Your task to perform on an android device: Open network settings Image 0: 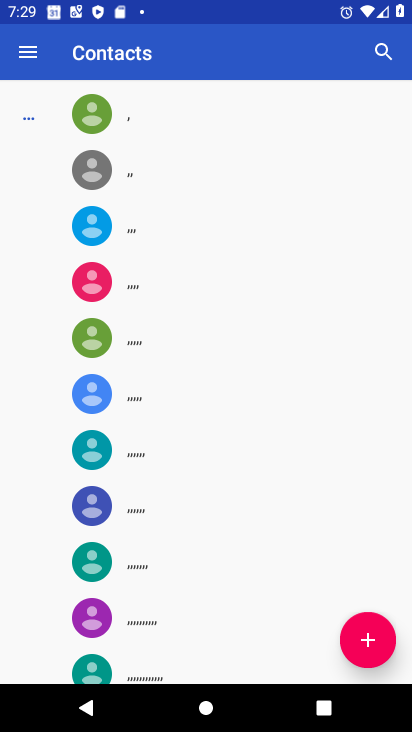
Step 0: press home button
Your task to perform on an android device: Open network settings Image 1: 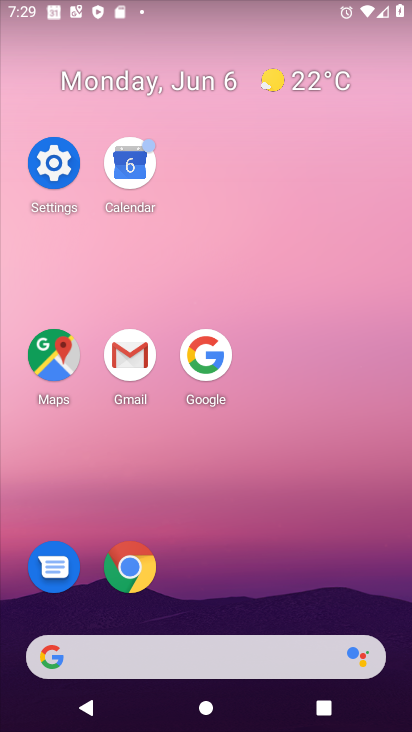
Step 1: click (84, 147)
Your task to perform on an android device: Open network settings Image 2: 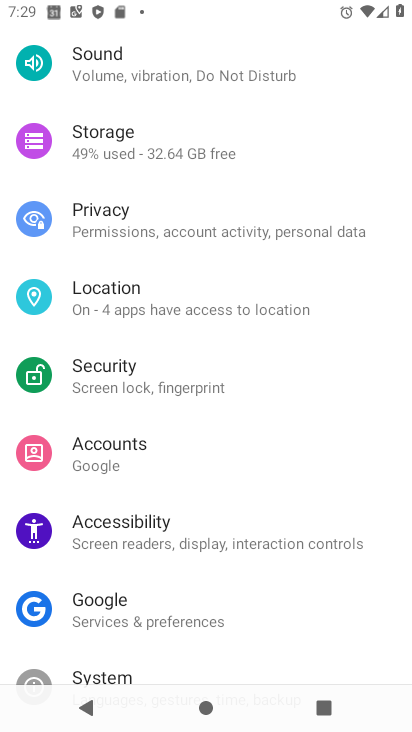
Step 2: drag from (147, 95) to (160, 368)
Your task to perform on an android device: Open network settings Image 3: 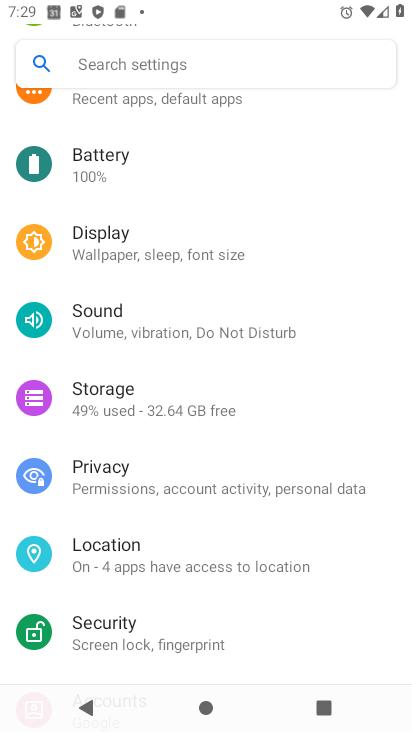
Step 3: drag from (217, 171) to (162, 515)
Your task to perform on an android device: Open network settings Image 4: 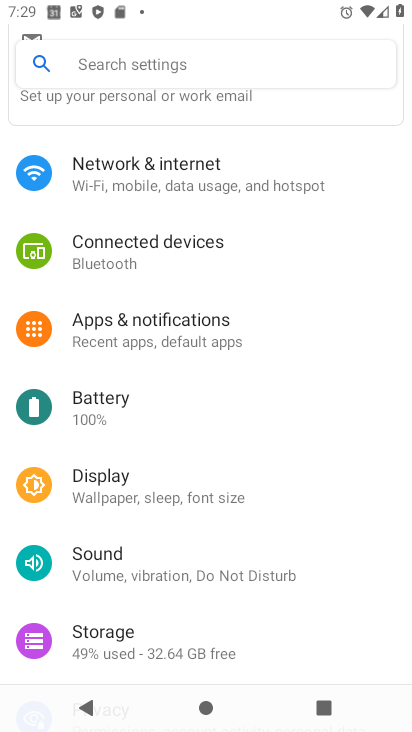
Step 4: click (208, 181)
Your task to perform on an android device: Open network settings Image 5: 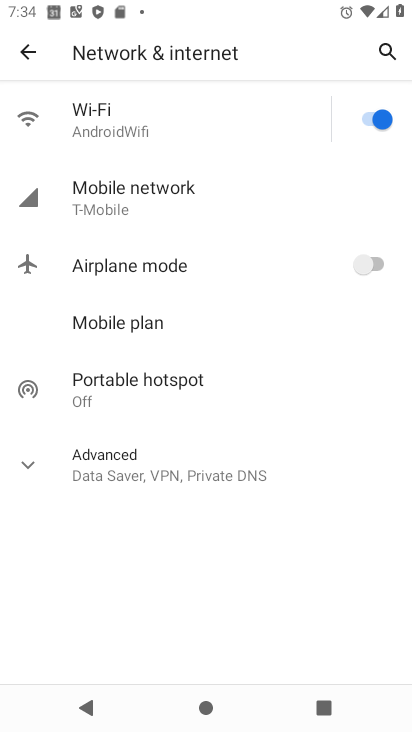
Step 5: task complete